Your task to perform on an android device: toggle data saver in the chrome app Image 0: 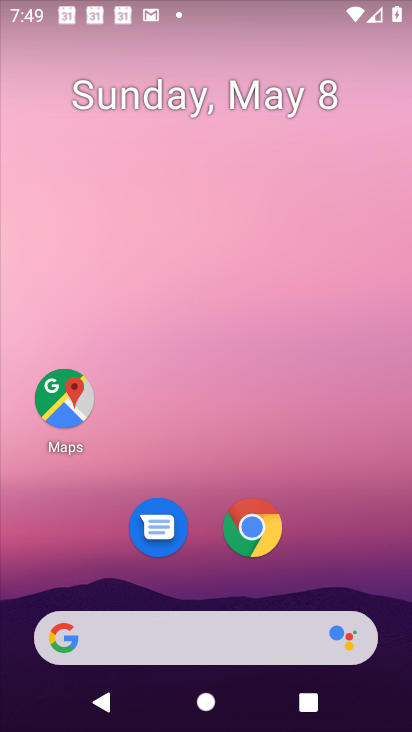
Step 0: click (261, 529)
Your task to perform on an android device: toggle data saver in the chrome app Image 1: 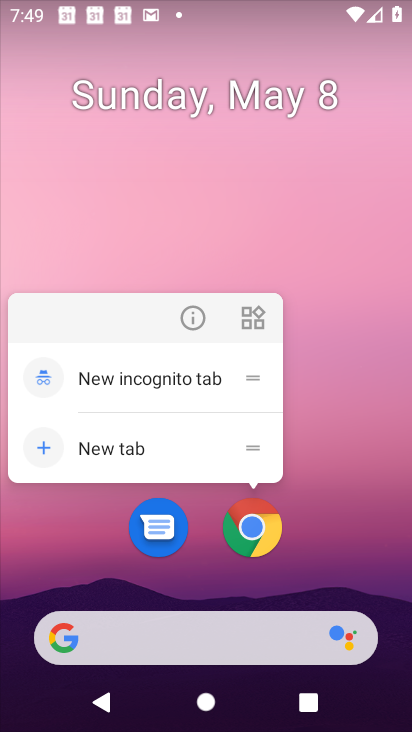
Step 1: click (261, 529)
Your task to perform on an android device: toggle data saver in the chrome app Image 2: 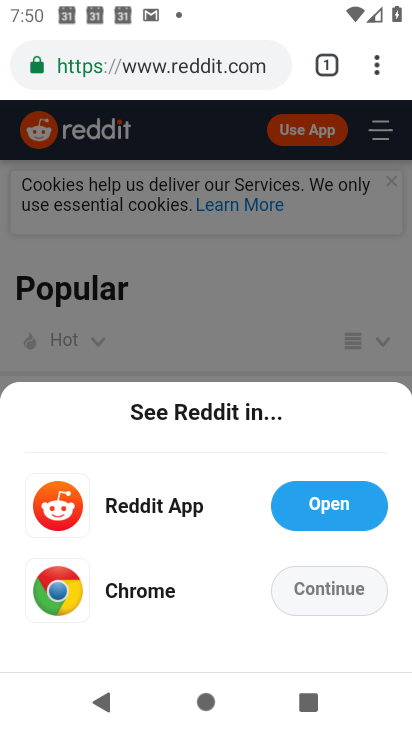
Step 2: click (371, 61)
Your task to perform on an android device: toggle data saver in the chrome app Image 3: 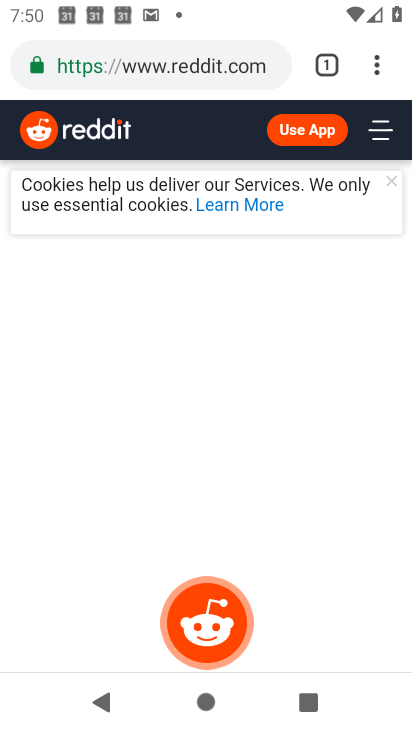
Step 3: click (371, 61)
Your task to perform on an android device: toggle data saver in the chrome app Image 4: 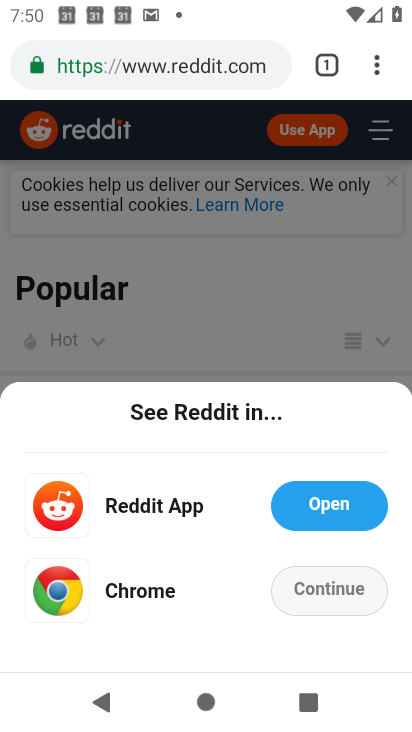
Step 4: click (372, 62)
Your task to perform on an android device: toggle data saver in the chrome app Image 5: 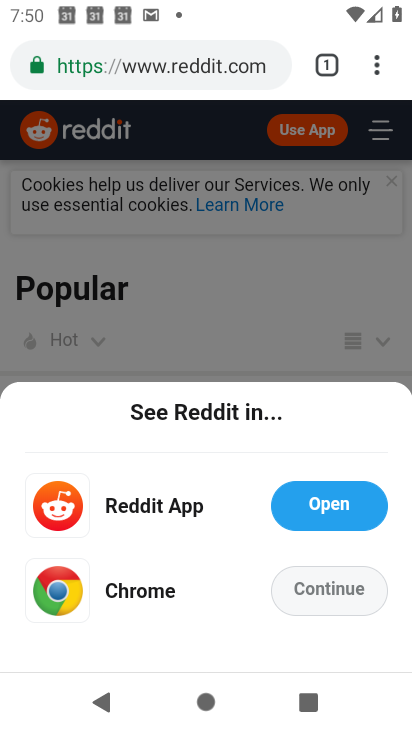
Step 5: click (372, 62)
Your task to perform on an android device: toggle data saver in the chrome app Image 6: 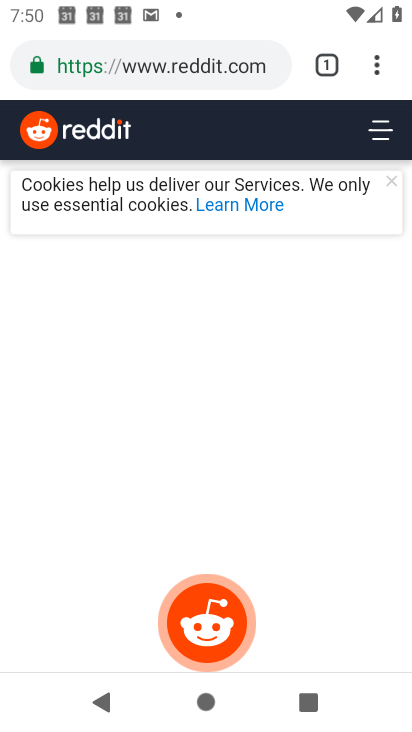
Step 6: click (373, 64)
Your task to perform on an android device: toggle data saver in the chrome app Image 7: 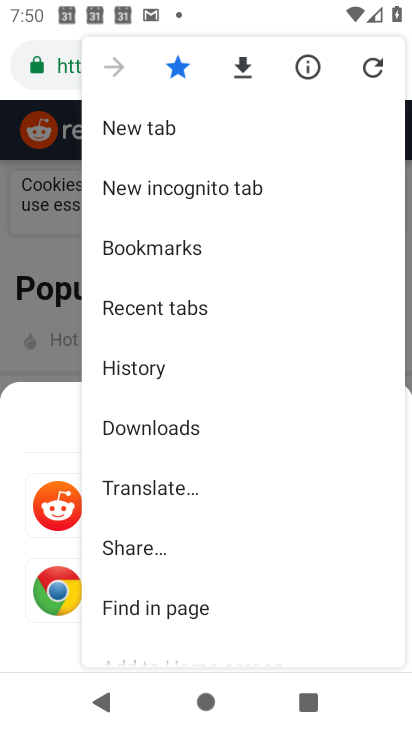
Step 7: drag from (251, 597) to (216, 368)
Your task to perform on an android device: toggle data saver in the chrome app Image 8: 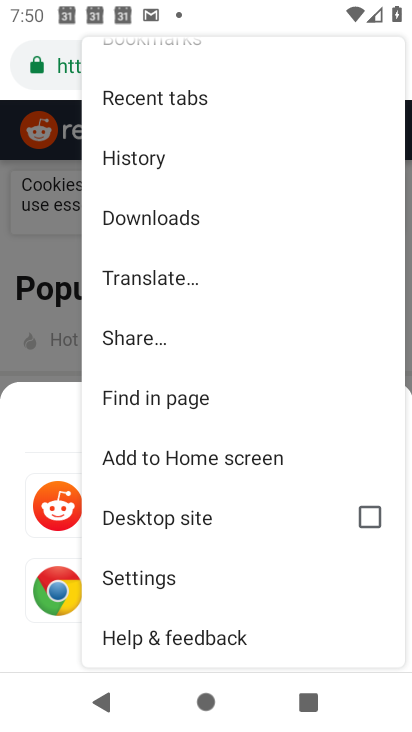
Step 8: click (185, 587)
Your task to perform on an android device: toggle data saver in the chrome app Image 9: 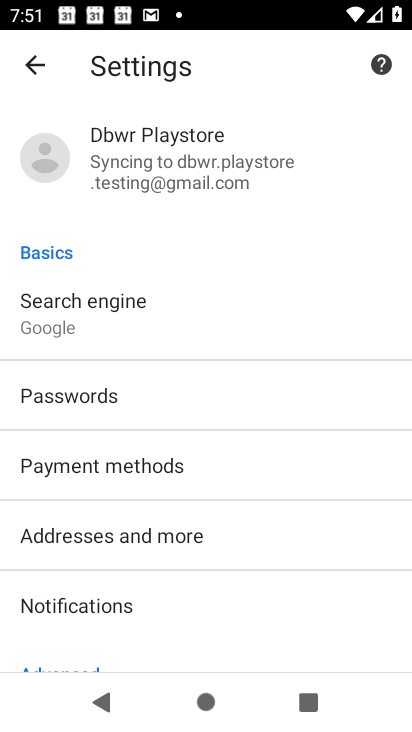
Step 9: drag from (119, 631) to (135, 424)
Your task to perform on an android device: toggle data saver in the chrome app Image 10: 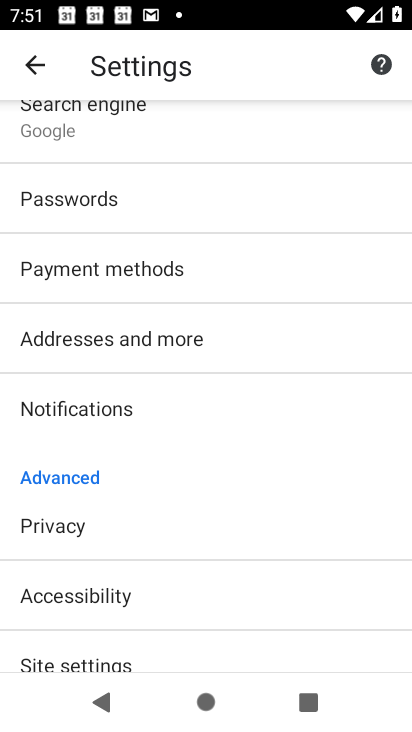
Step 10: drag from (198, 629) to (214, 360)
Your task to perform on an android device: toggle data saver in the chrome app Image 11: 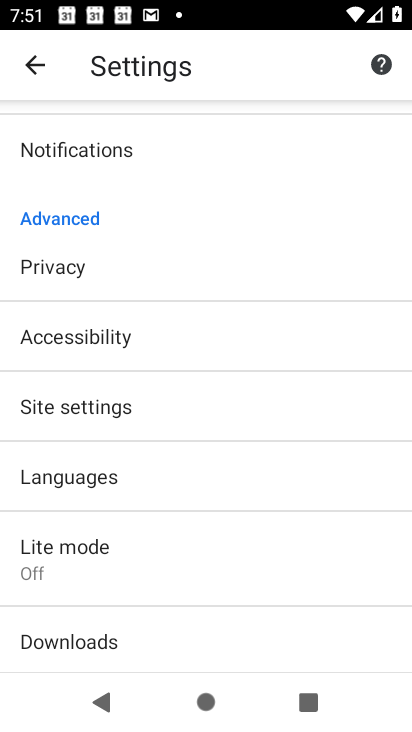
Step 11: click (86, 555)
Your task to perform on an android device: toggle data saver in the chrome app Image 12: 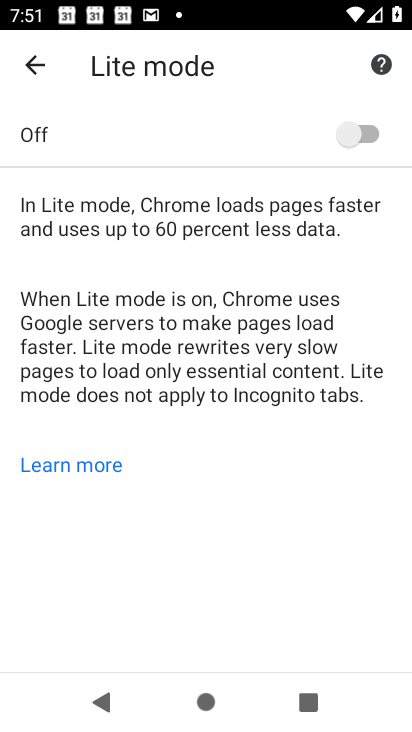
Step 12: click (373, 132)
Your task to perform on an android device: toggle data saver in the chrome app Image 13: 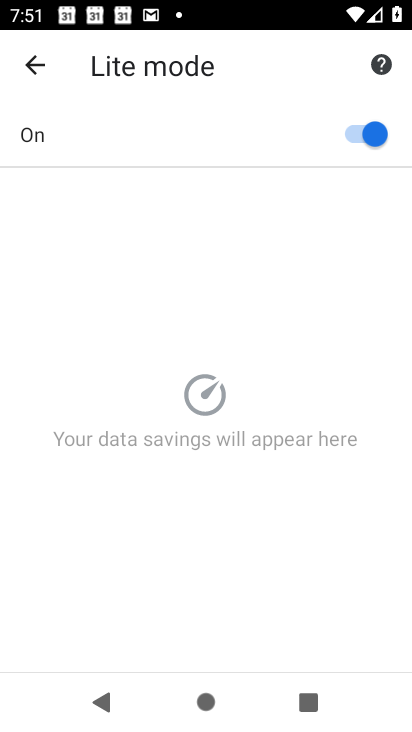
Step 13: task complete